Your task to perform on an android device: see tabs open on other devices in the chrome app Image 0: 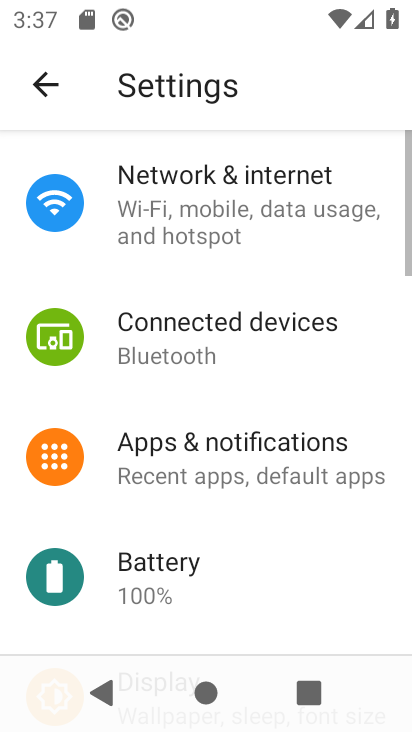
Step 0: press home button
Your task to perform on an android device: see tabs open on other devices in the chrome app Image 1: 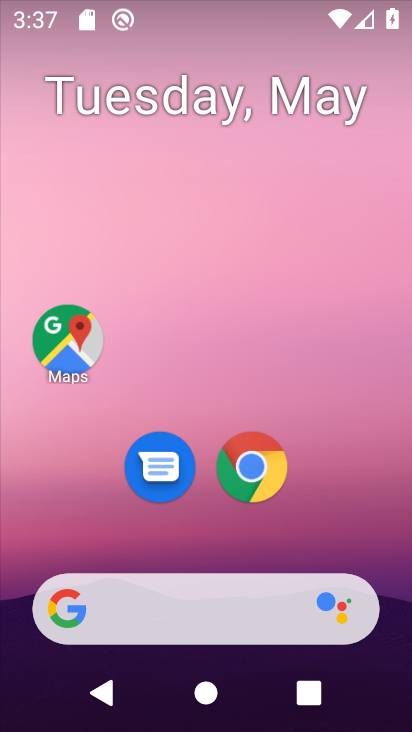
Step 1: drag from (277, 520) to (249, 234)
Your task to perform on an android device: see tabs open on other devices in the chrome app Image 2: 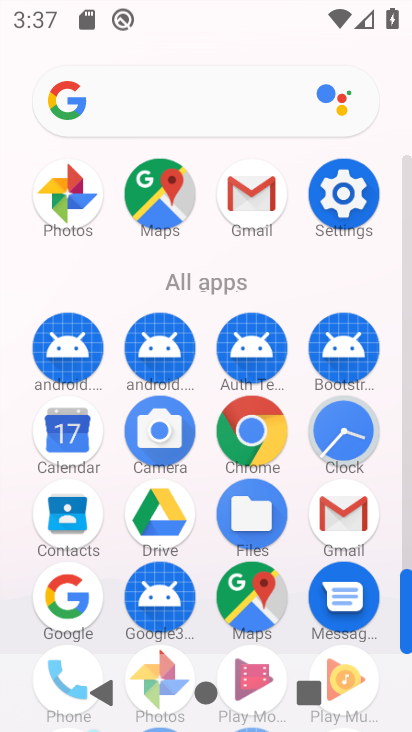
Step 2: click (263, 422)
Your task to perform on an android device: see tabs open on other devices in the chrome app Image 3: 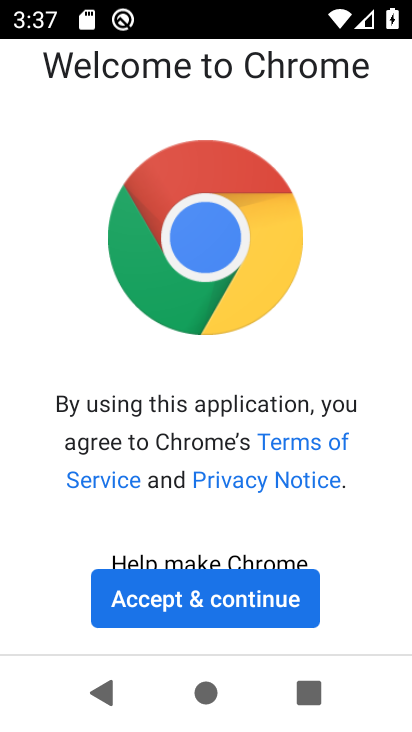
Step 3: click (188, 611)
Your task to perform on an android device: see tabs open on other devices in the chrome app Image 4: 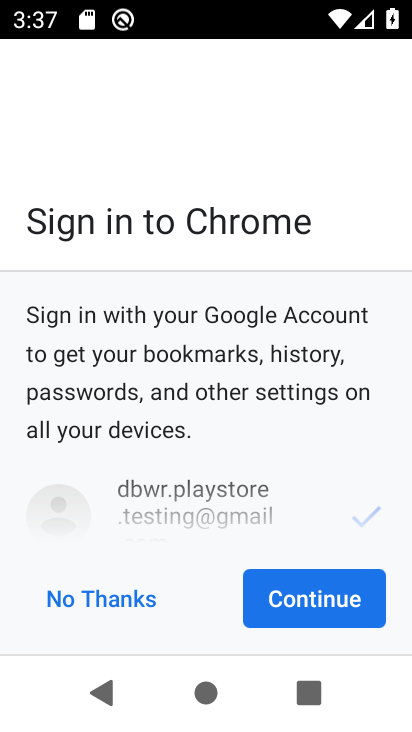
Step 4: click (309, 594)
Your task to perform on an android device: see tabs open on other devices in the chrome app Image 5: 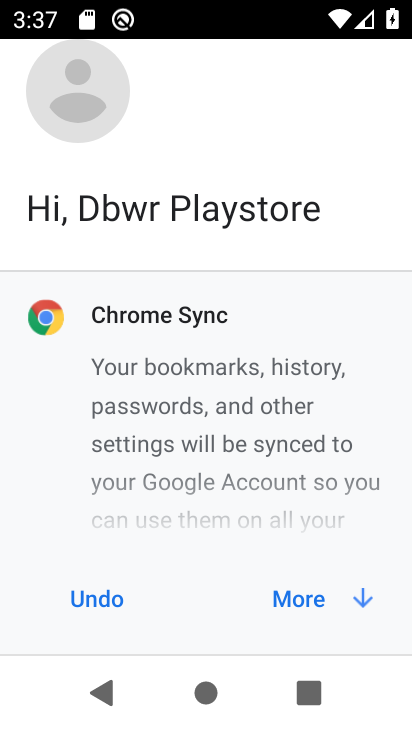
Step 5: click (307, 605)
Your task to perform on an android device: see tabs open on other devices in the chrome app Image 6: 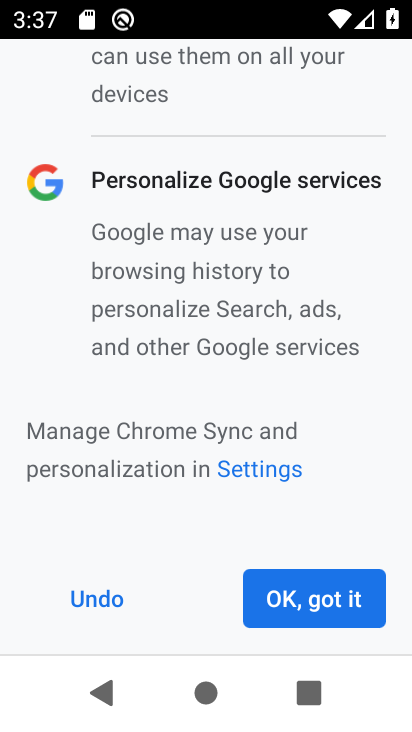
Step 6: click (307, 605)
Your task to perform on an android device: see tabs open on other devices in the chrome app Image 7: 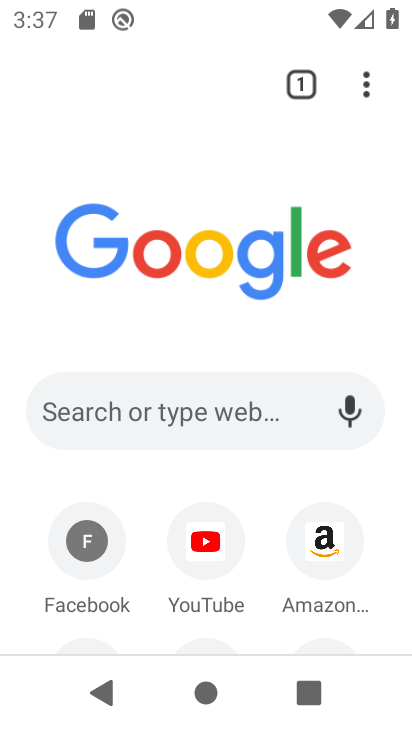
Step 7: click (367, 87)
Your task to perform on an android device: see tabs open on other devices in the chrome app Image 8: 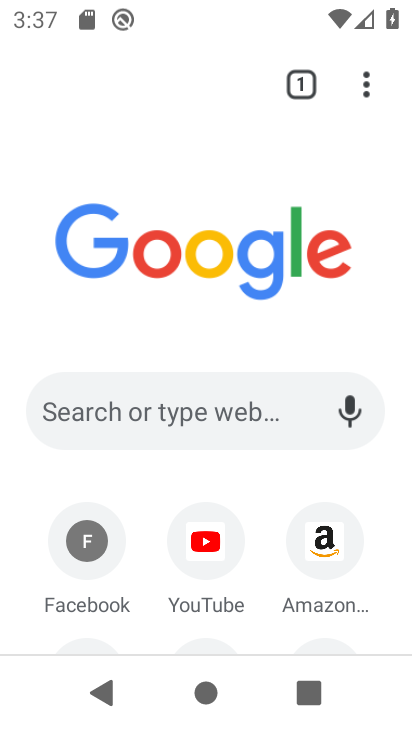
Step 8: click (368, 88)
Your task to perform on an android device: see tabs open on other devices in the chrome app Image 9: 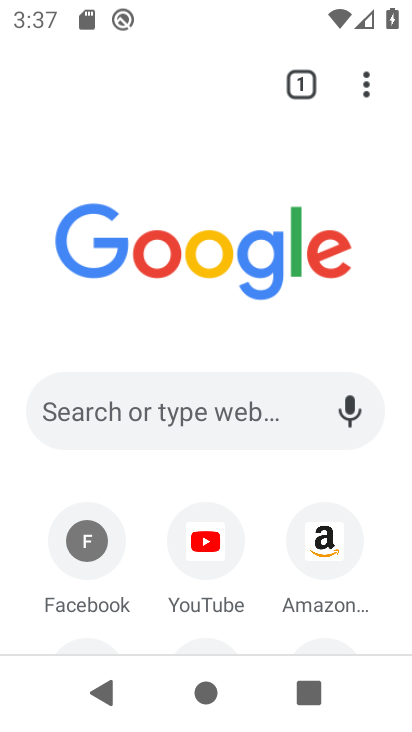
Step 9: click (366, 79)
Your task to perform on an android device: see tabs open on other devices in the chrome app Image 10: 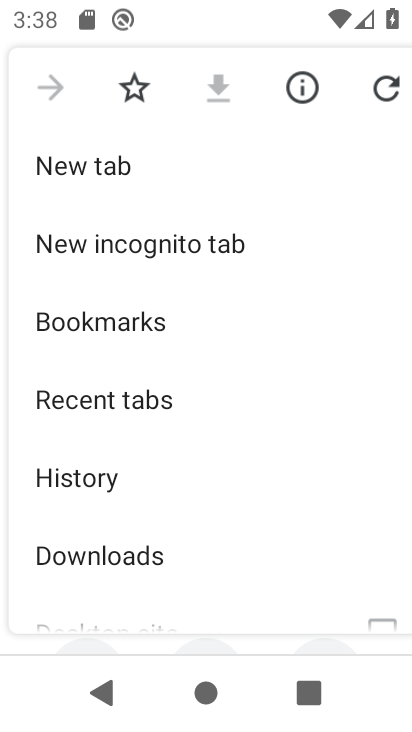
Step 10: click (72, 412)
Your task to perform on an android device: see tabs open on other devices in the chrome app Image 11: 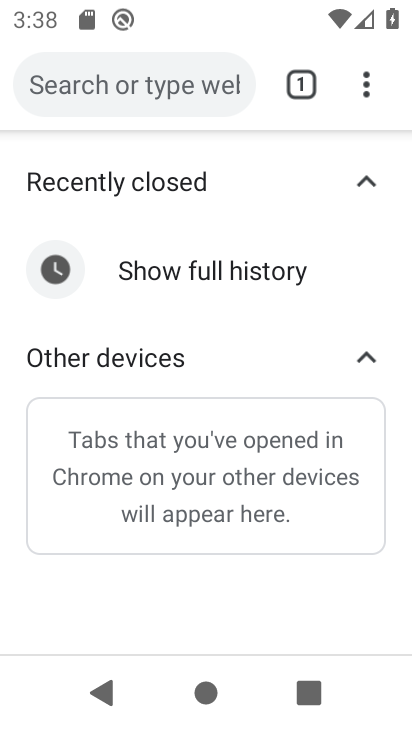
Step 11: task complete